Your task to perform on an android device: Open Chrome and go to the settings page Image 0: 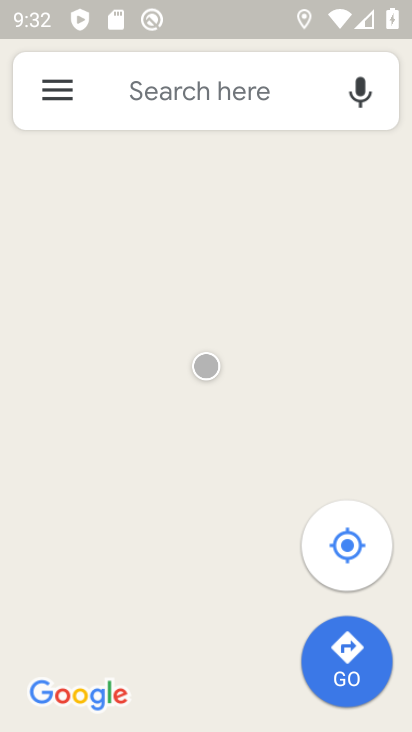
Step 0: press home button
Your task to perform on an android device: Open Chrome and go to the settings page Image 1: 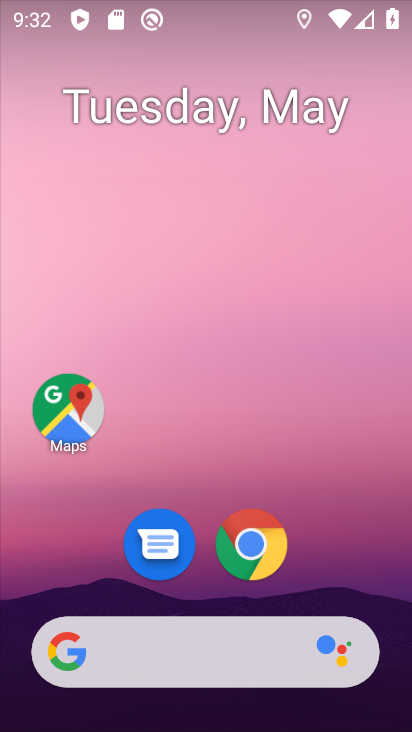
Step 1: drag from (297, 590) to (292, 193)
Your task to perform on an android device: Open Chrome and go to the settings page Image 2: 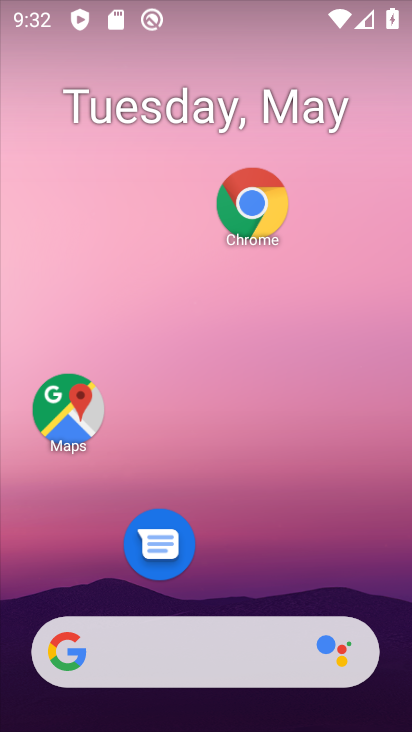
Step 2: click (252, 194)
Your task to perform on an android device: Open Chrome and go to the settings page Image 3: 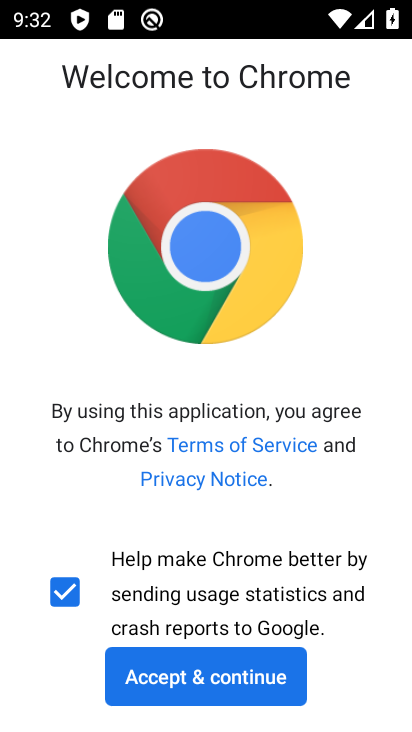
Step 3: click (188, 679)
Your task to perform on an android device: Open Chrome and go to the settings page Image 4: 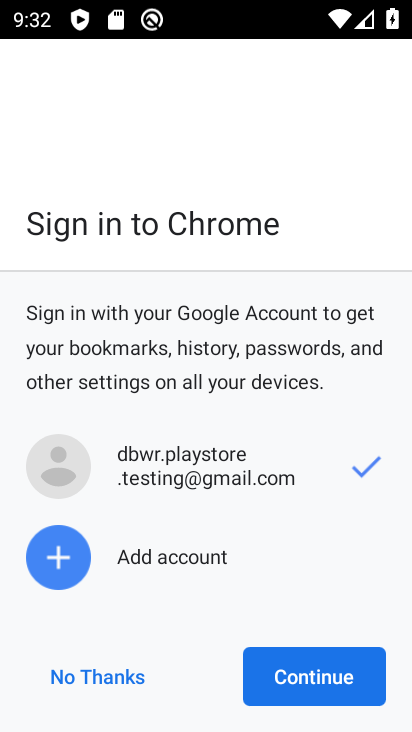
Step 4: click (268, 686)
Your task to perform on an android device: Open Chrome and go to the settings page Image 5: 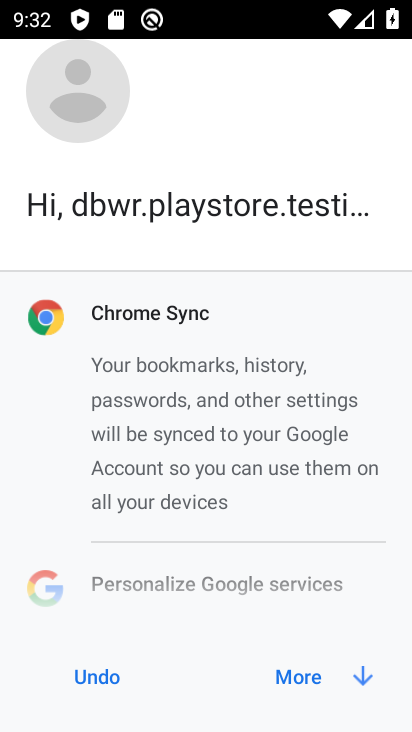
Step 5: click (289, 672)
Your task to perform on an android device: Open Chrome and go to the settings page Image 6: 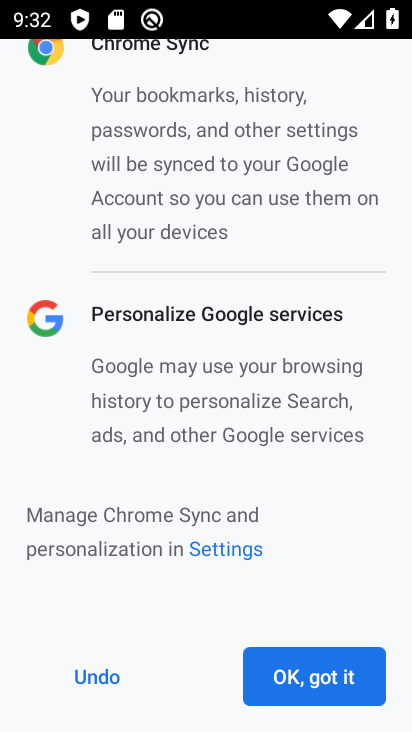
Step 6: click (289, 672)
Your task to perform on an android device: Open Chrome and go to the settings page Image 7: 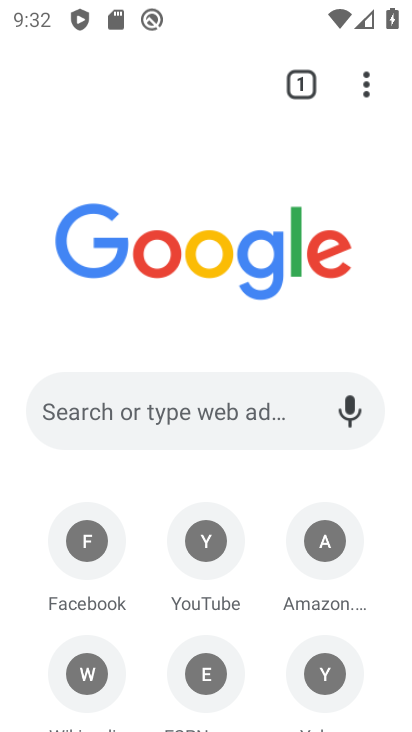
Step 7: click (358, 94)
Your task to perform on an android device: Open Chrome and go to the settings page Image 8: 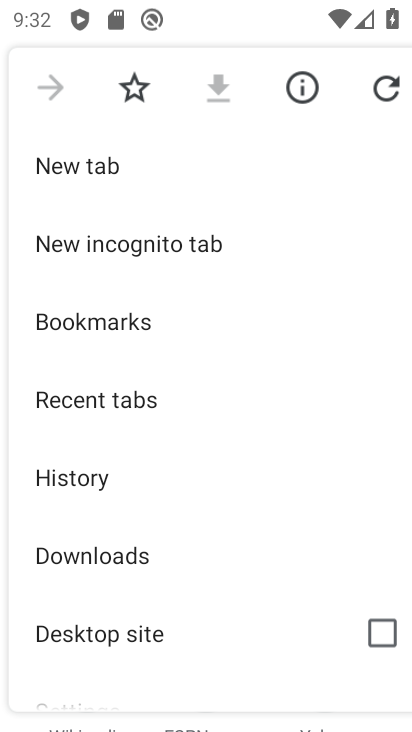
Step 8: drag from (168, 673) to (165, 212)
Your task to perform on an android device: Open Chrome and go to the settings page Image 9: 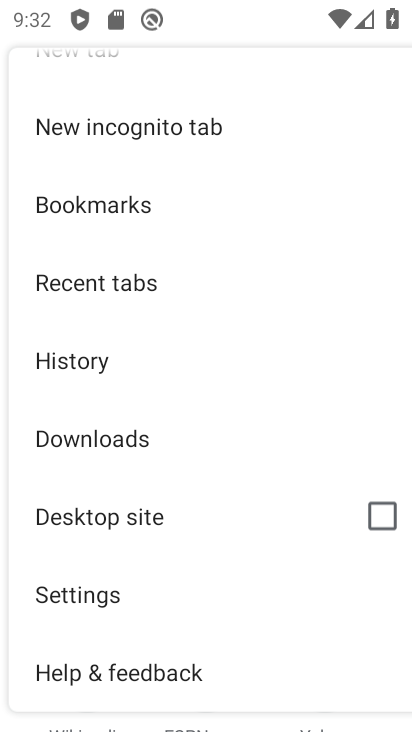
Step 9: click (161, 609)
Your task to perform on an android device: Open Chrome and go to the settings page Image 10: 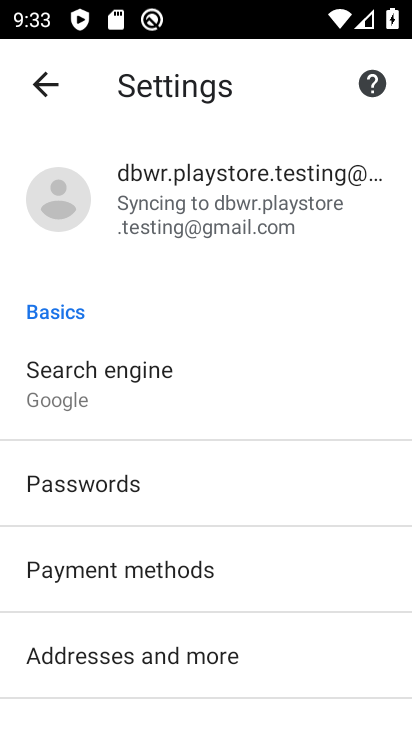
Step 10: task complete